Your task to perform on an android device: Open Chrome and go to the settings page Image 0: 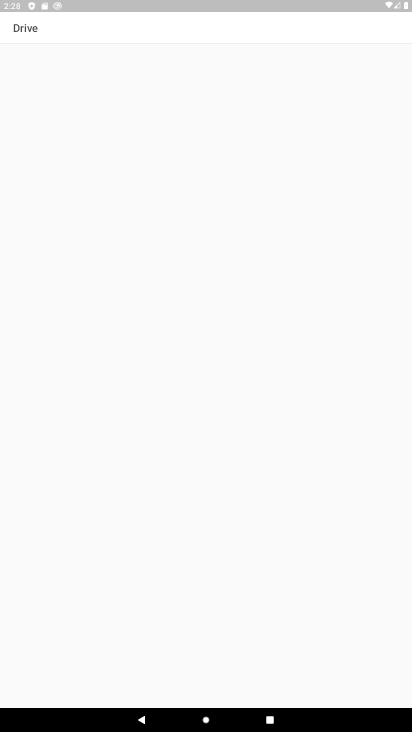
Step 0: press home button
Your task to perform on an android device: Open Chrome and go to the settings page Image 1: 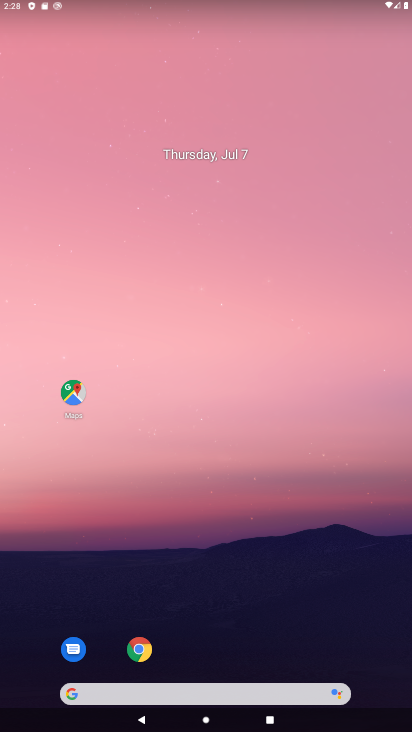
Step 1: drag from (207, 652) to (181, 201)
Your task to perform on an android device: Open Chrome and go to the settings page Image 2: 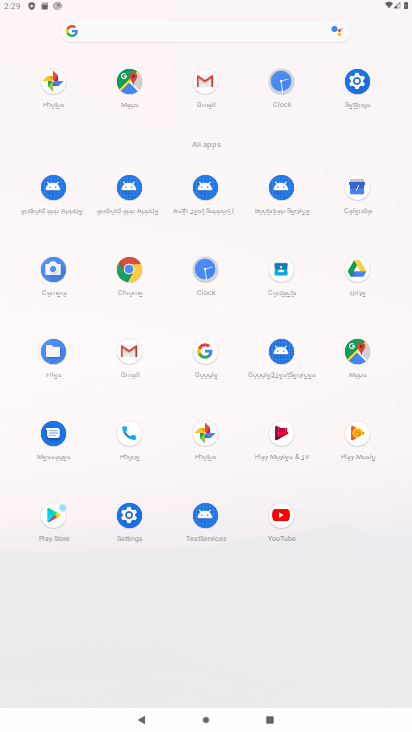
Step 2: click (132, 292)
Your task to perform on an android device: Open Chrome and go to the settings page Image 3: 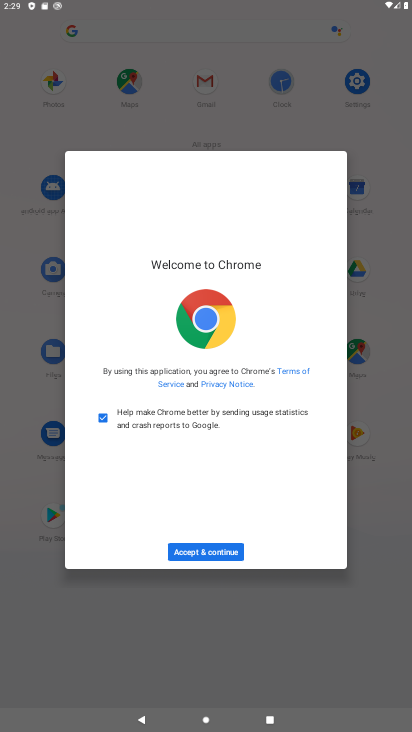
Step 3: click (196, 555)
Your task to perform on an android device: Open Chrome and go to the settings page Image 4: 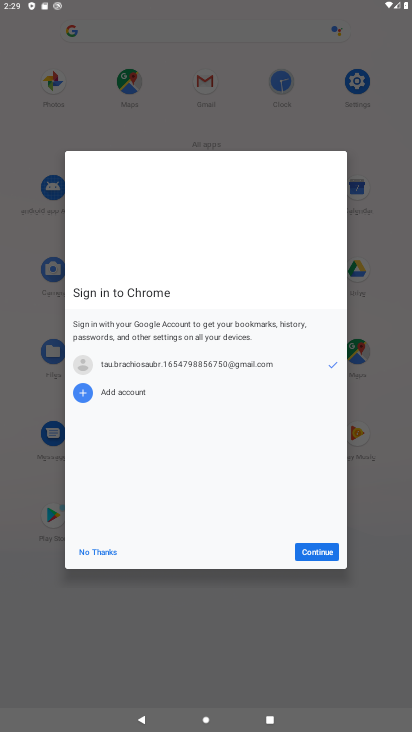
Step 4: click (326, 559)
Your task to perform on an android device: Open Chrome and go to the settings page Image 5: 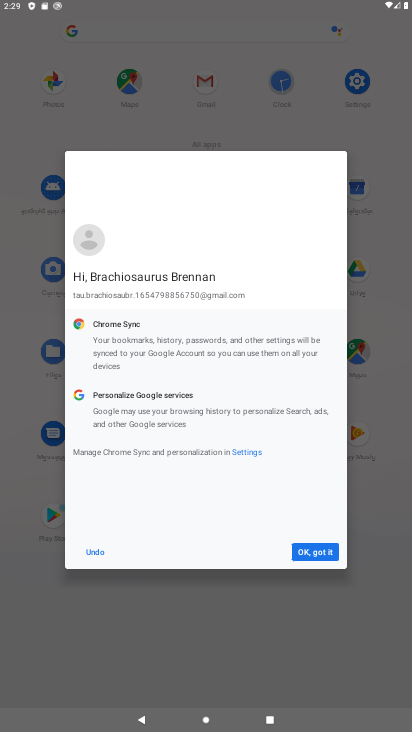
Step 5: click (328, 558)
Your task to perform on an android device: Open Chrome and go to the settings page Image 6: 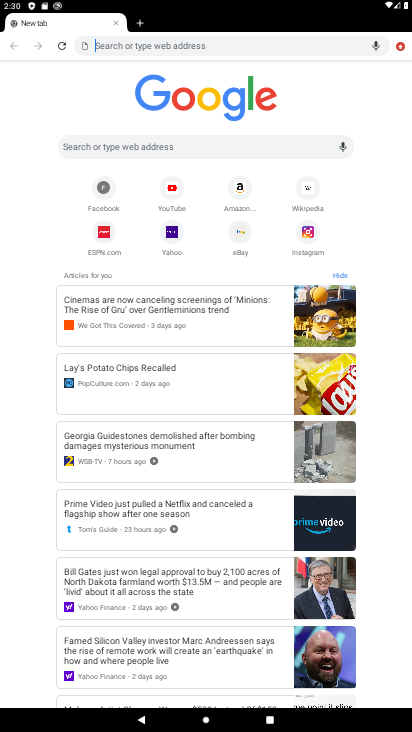
Step 6: press home button
Your task to perform on an android device: Open Chrome and go to the settings page Image 7: 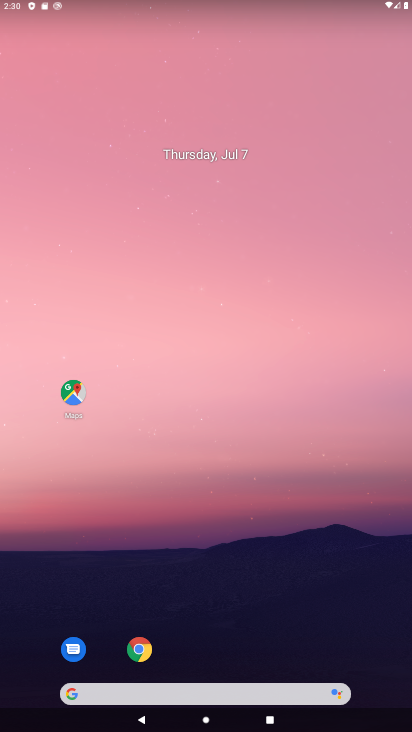
Step 7: click (143, 653)
Your task to perform on an android device: Open Chrome and go to the settings page Image 8: 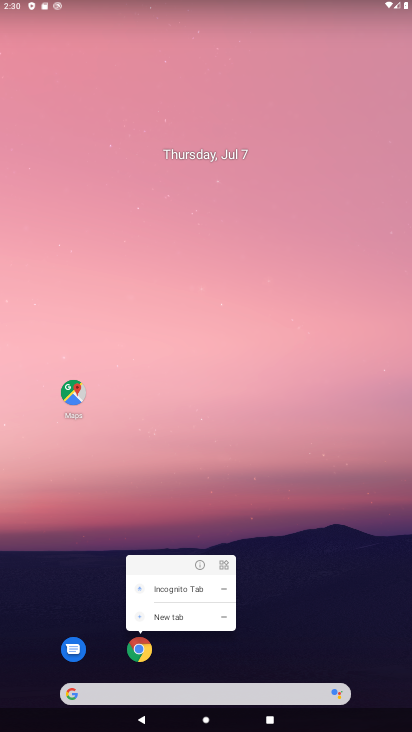
Step 8: click (143, 653)
Your task to perform on an android device: Open Chrome and go to the settings page Image 9: 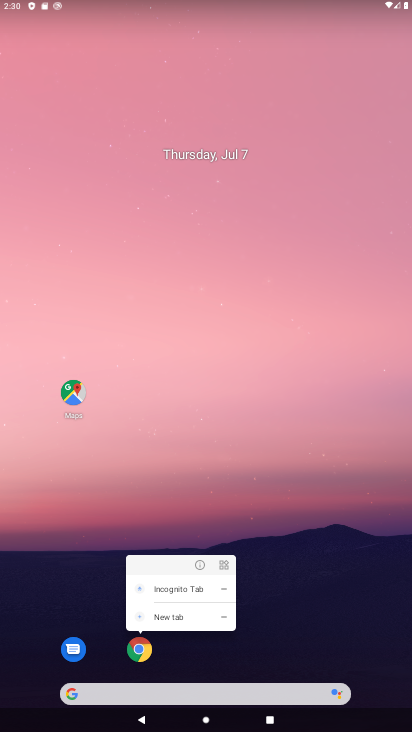
Step 9: click (143, 653)
Your task to perform on an android device: Open Chrome and go to the settings page Image 10: 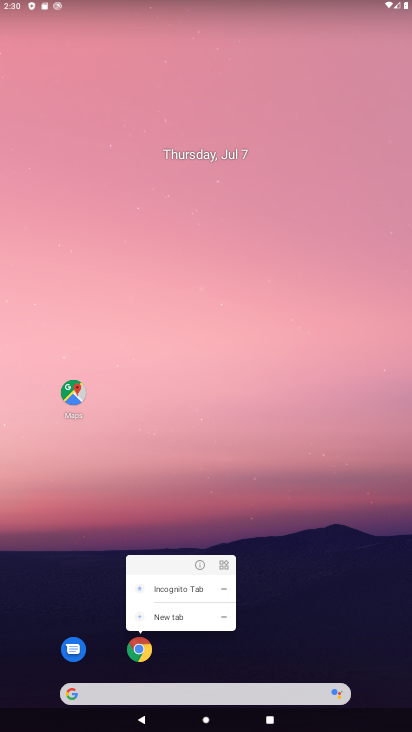
Step 10: click (143, 654)
Your task to perform on an android device: Open Chrome and go to the settings page Image 11: 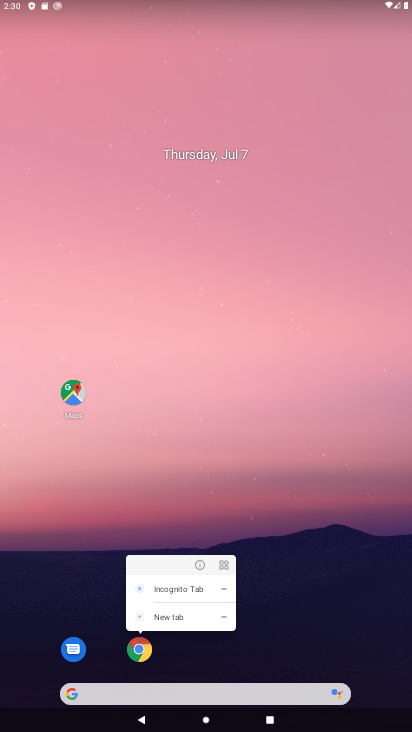
Step 11: click (143, 654)
Your task to perform on an android device: Open Chrome and go to the settings page Image 12: 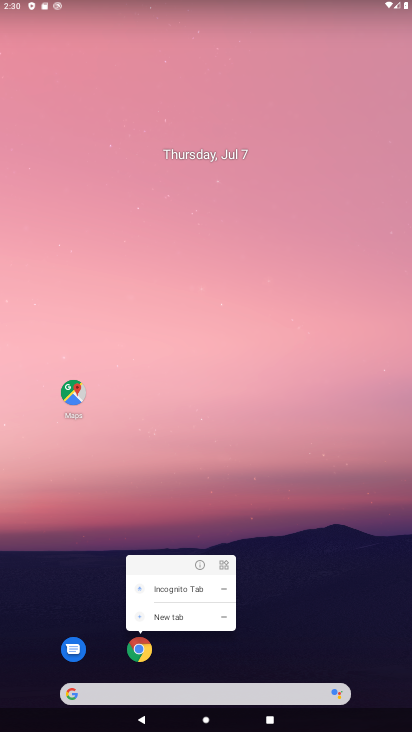
Step 12: drag from (203, 673) to (364, 3)
Your task to perform on an android device: Open Chrome and go to the settings page Image 13: 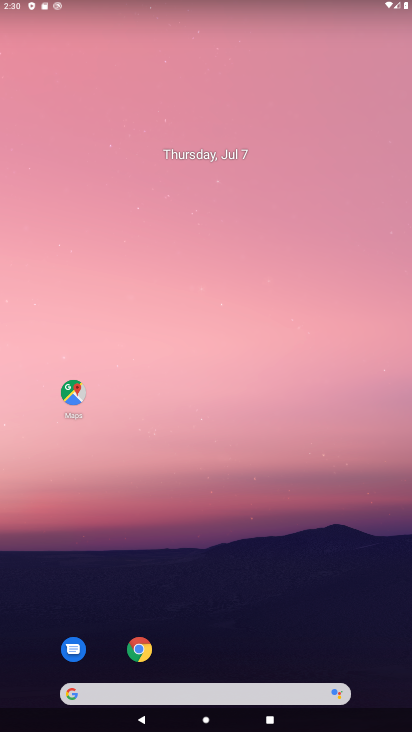
Step 13: drag from (237, 655) to (268, 27)
Your task to perform on an android device: Open Chrome and go to the settings page Image 14: 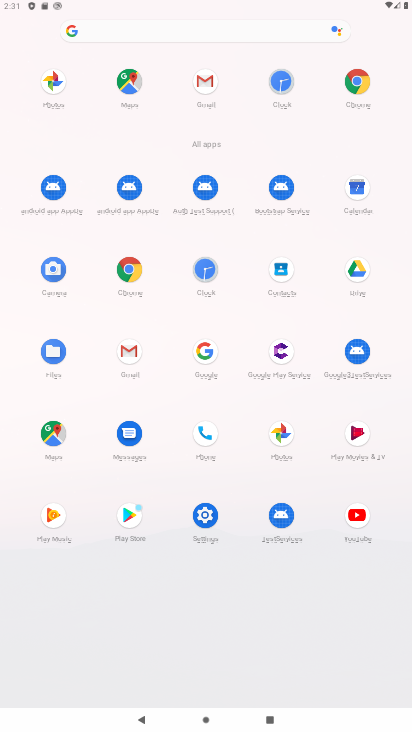
Step 14: click (132, 279)
Your task to perform on an android device: Open Chrome and go to the settings page Image 15: 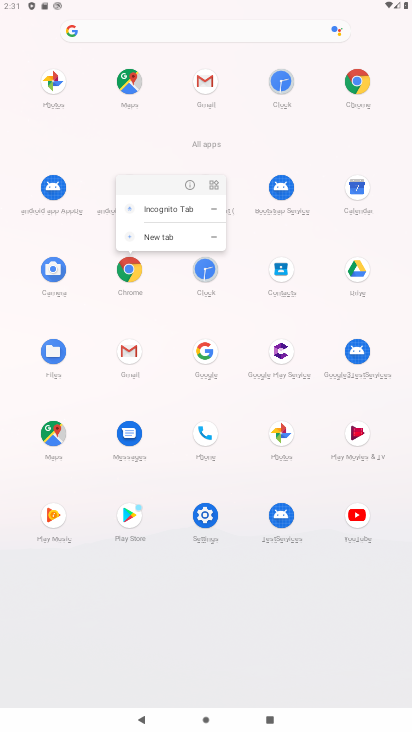
Step 15: click (132, 279)
Your task to perform on an android device: Open Chrome and go to the settings page Image 16: 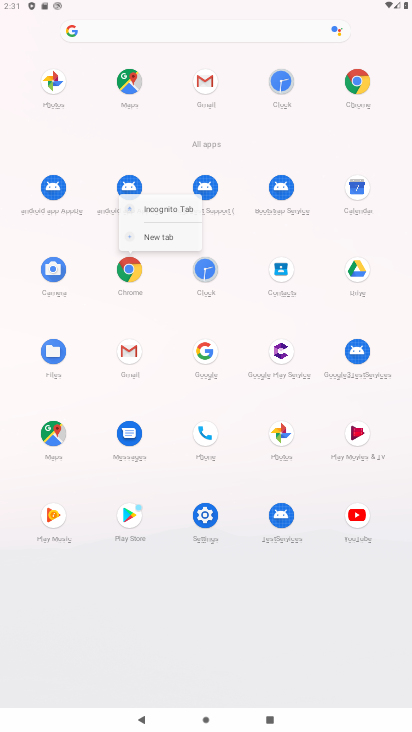
Step 16: click (132, 279)
Your task to perform on an android device: Open Chrome and go to the settings page Image 17: 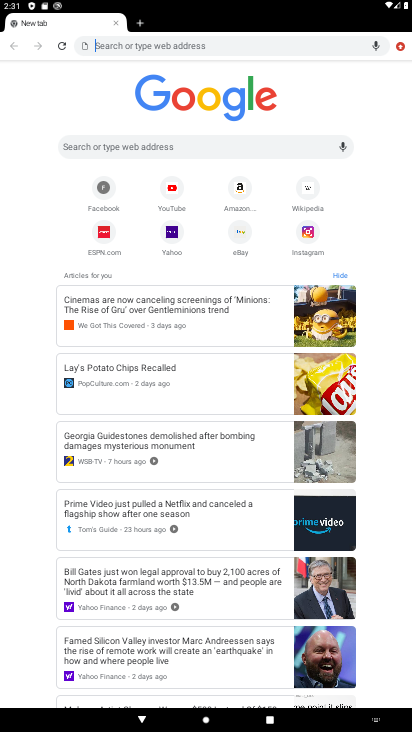
Step 17: click (406, 49)
Your task to perform on an android device: Open Chrome and go to the settings page Image 18: 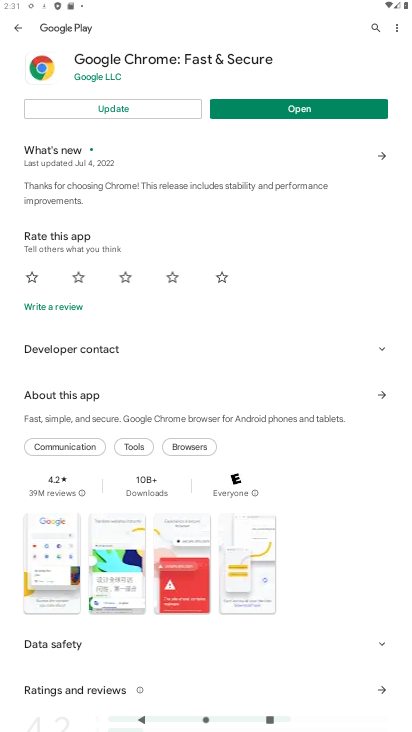
Step 18: click (249, 112)
Your task to perform on an android device: Open Chrome and go to the settings page Image 19: 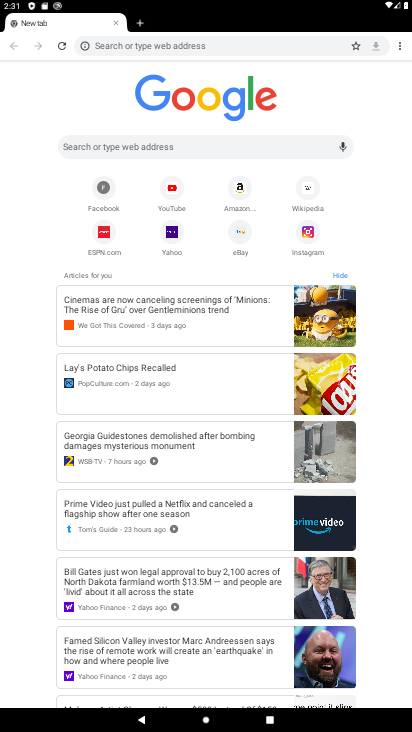
Step 19: click (399, 41)
Your task to perform on an android device: Open Chrome and go to the settings page Image 20: 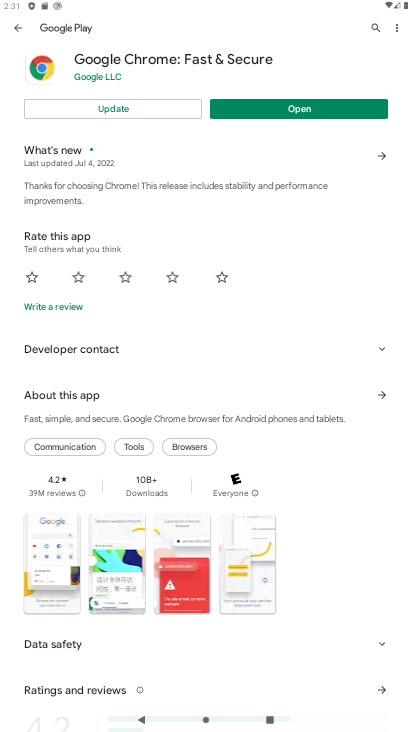
Step 20: click (335, 115)
Your task to perform on an android device: Open Chrome and go to the settings page Image 21: 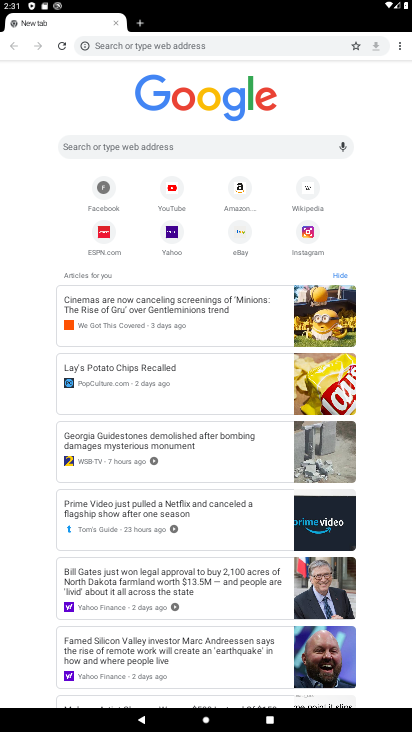
Step 21: click (399, 56)
Your task to perform on an android device: Open Chrome and go to the settings page Image 22: 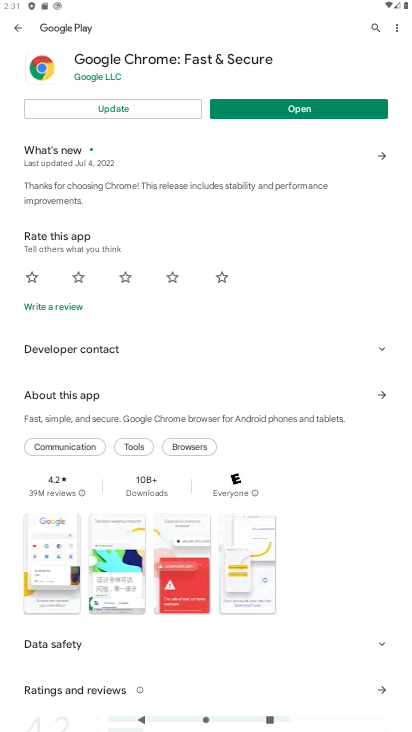
Step 22: click (358, 101)
Your task to perform on an android device: Open Chrome and go to the settings page Image 23: 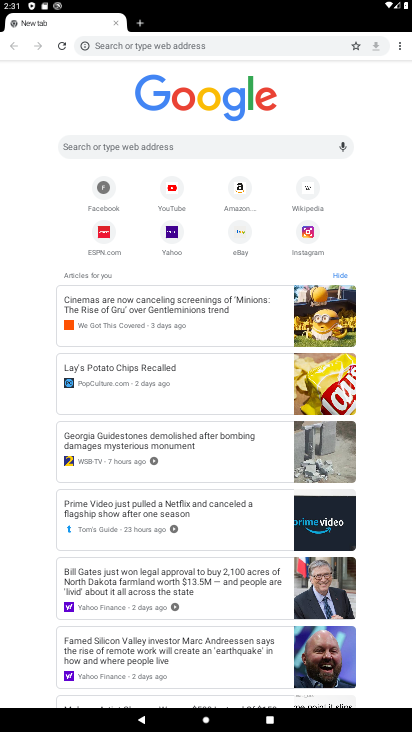
Step 23: click (401, 47)
Your task to perform on an android device: Open Chrome and go to the settings page Image 24: 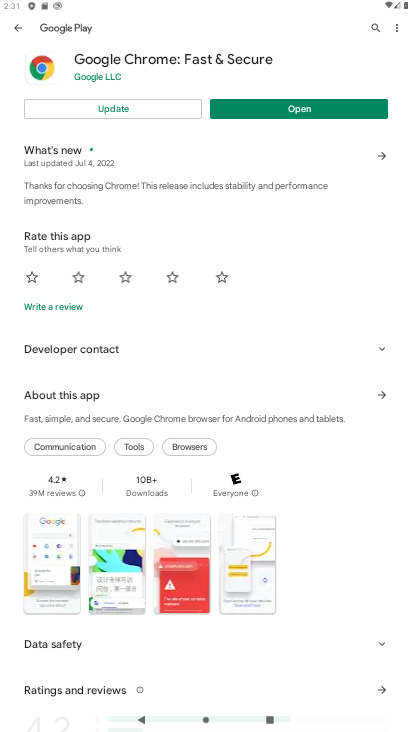
Step 24: click (334, 116)
Your task to perform on an android device: Open Chrome and go to the settings page Image 25: 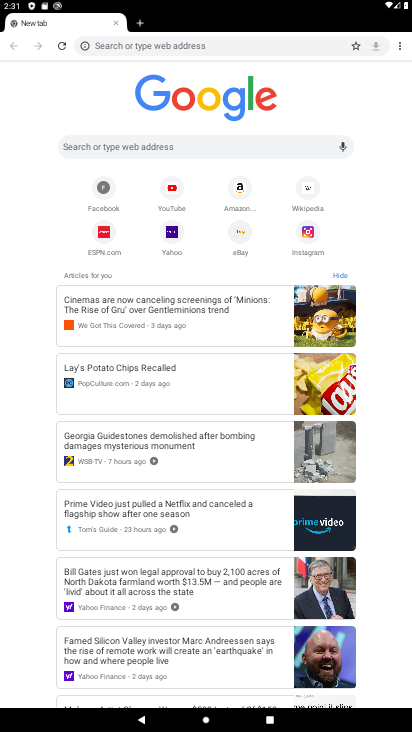
Step 25: click (399, 45)
Your task to perform on an android device: Open Chrome and go to the settings page Image 26: 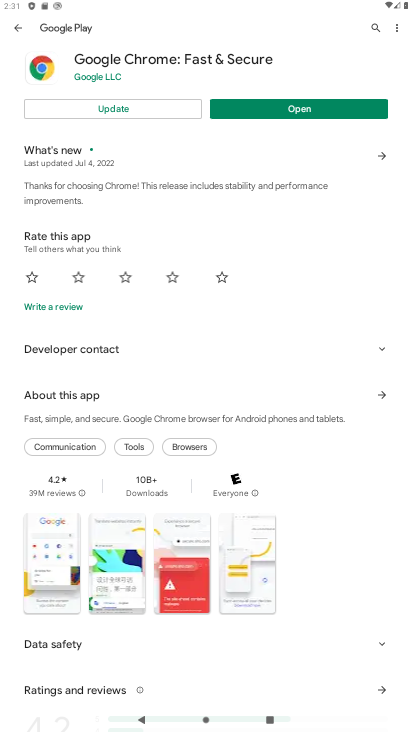
Step 26: press home button
Your task to perform on an android device: Open Chrome and go to the settings page Image 27: 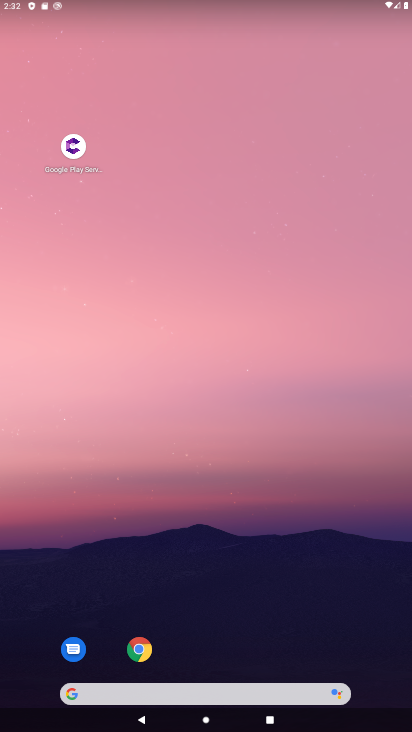
Step 27: drag from (230, 655) to (339, 0)
Your task to perform on an android device: Open Chrome and go to the settings page Image 28: 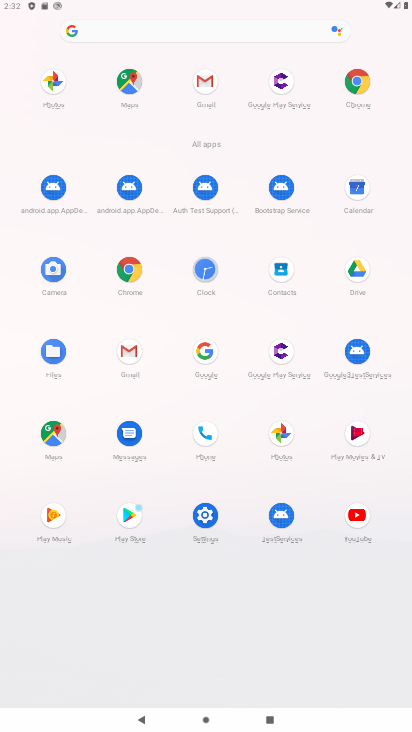
Step 28: click (353, 72)
Your task to perform on an android device: Open Chrome and go to the settings page Image 29: 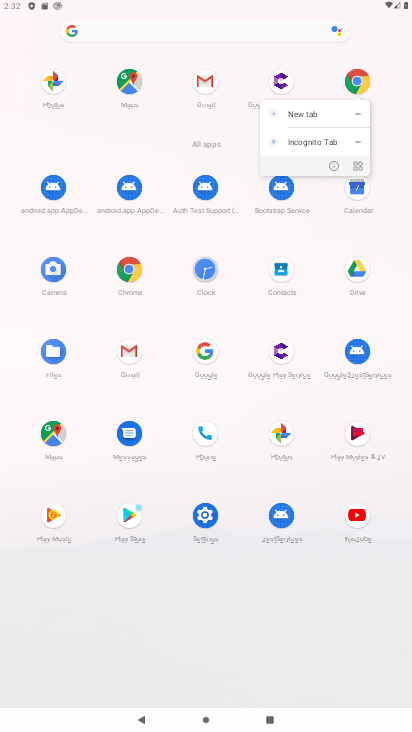
Step 29: click (355, 75)
Your task to perform on an android device: Open Chrome and go to the settings page Image 30: 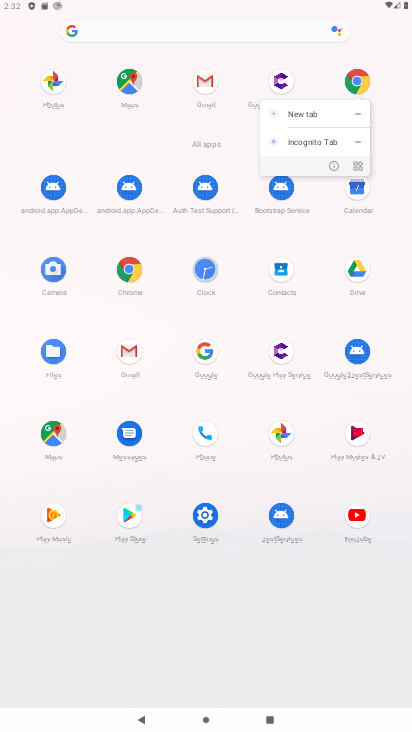
Step 30: click (353, 173)
Your task to perform on an android device: Open Chrome and go to the settings page Image 31: 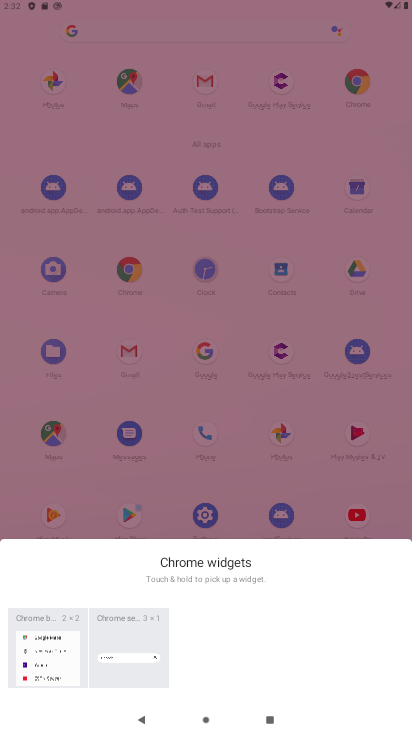
Step 31: click (332, 176)
Your task to perform on an android device: Open Chrome and go to the settings page Image 32: 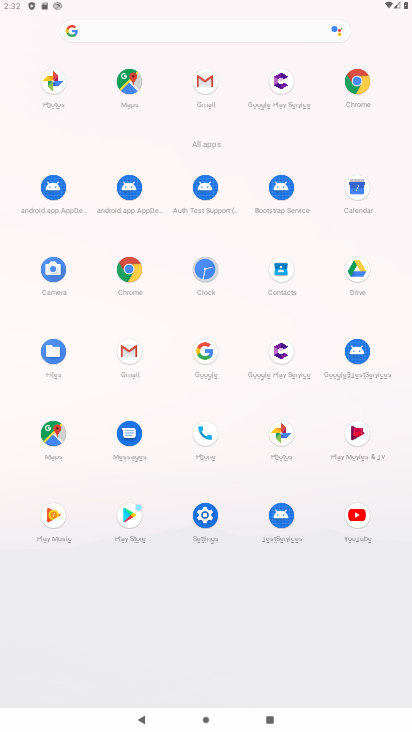
Step 32: click (333, 187)
Your task to perform on an android device: Open Chrome and go to the settings page Image 33: 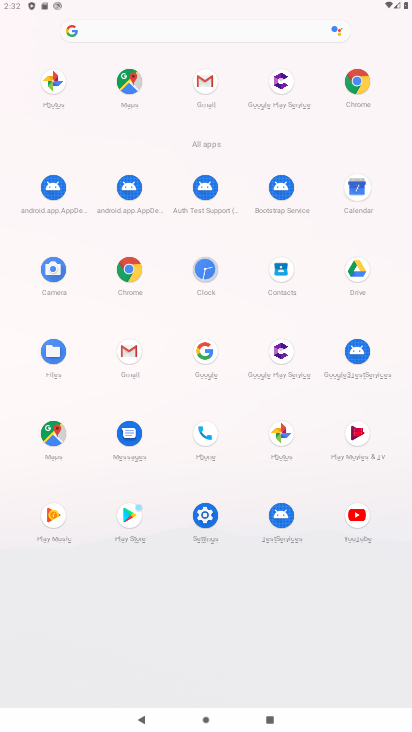
Step 33: click (352, 82)
Your task to perform on an android device: Open Chrome and go to the settings page Image 34: 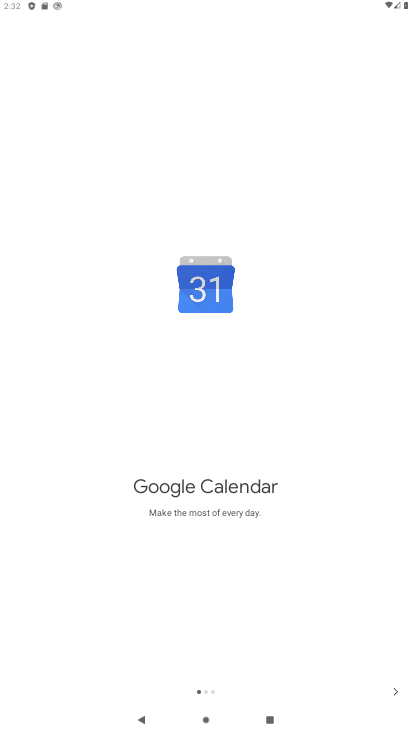
Step 34: press home button
Your task to perform on an android device: Open Chrome and go to the settings page Image 35: 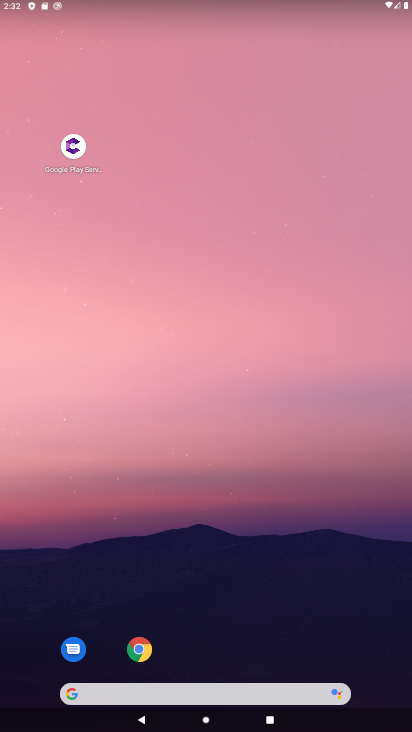
Step 35: drag from (250, 655) to (266, 35)
Your task to perform on an android device: Open Chrome and go to the settings page Image 36: 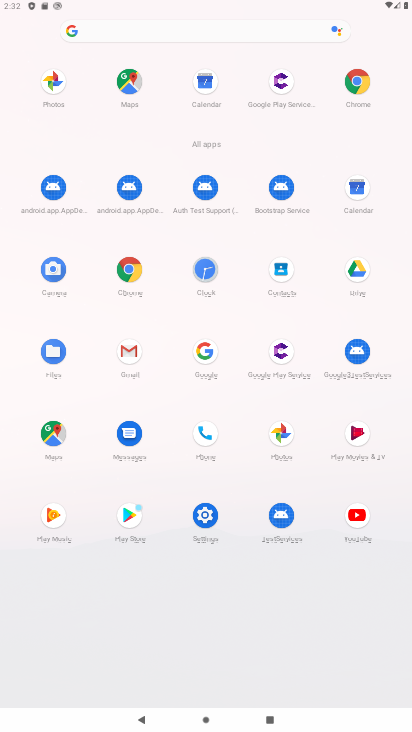
Step 36: click (360, 83)
Your task to perform on an android device: Open Chrome and go to the settings page Image 37: 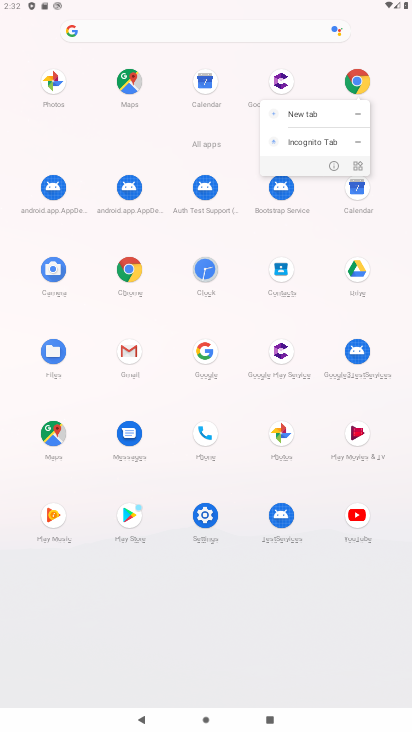
Step 37: click (360, 83)
Your task to perform on an android device: Open Chrome and go to the settings page Image 38: 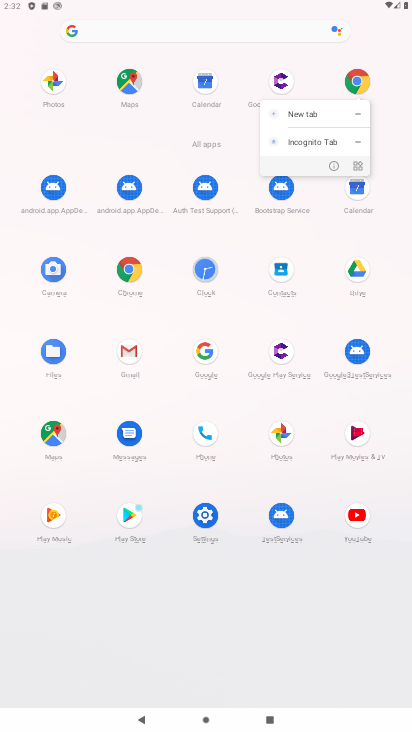
Step 38: click (366, 81)
Your task to perform on an android device: Open Chrome and go to the settings page Image 39: 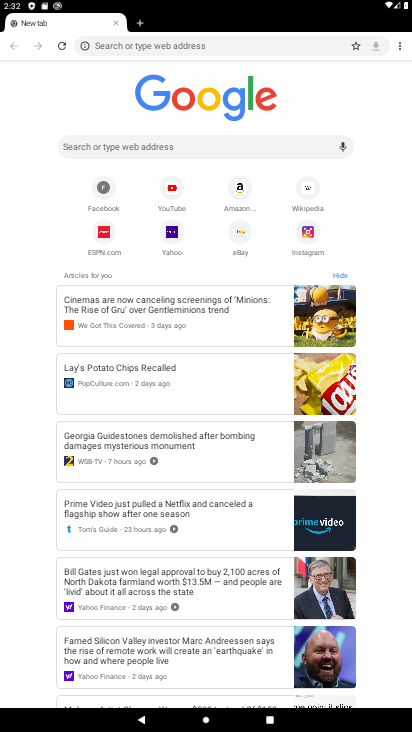
Step 39: click (401, 53)
Your task to perform on an android device: Open Chrome and go to the settings page Image 40: 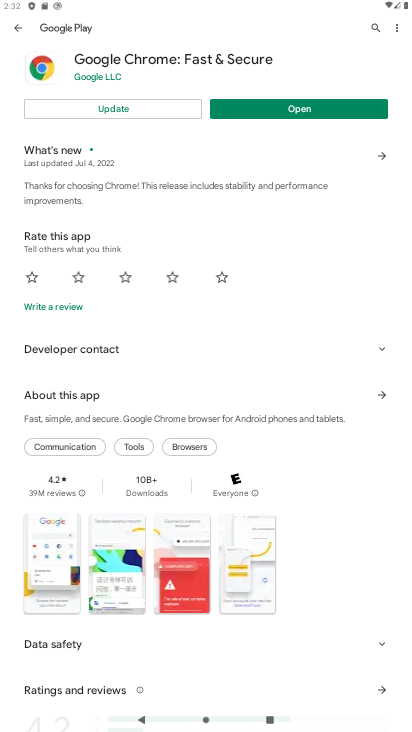
Step 40: click (193, 105)
Your task to perform on an android device: Open Chrome and go to the settings page Image 41: 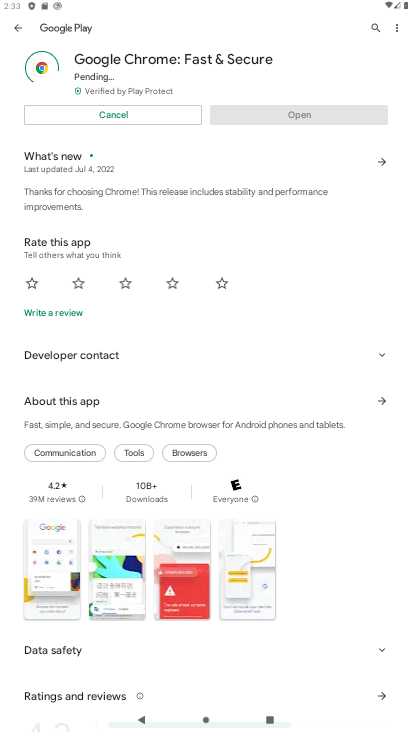
Step 41: click (189, 116)
Your task to perform on an android device: Open Chrome and go to the settings page Image 42: 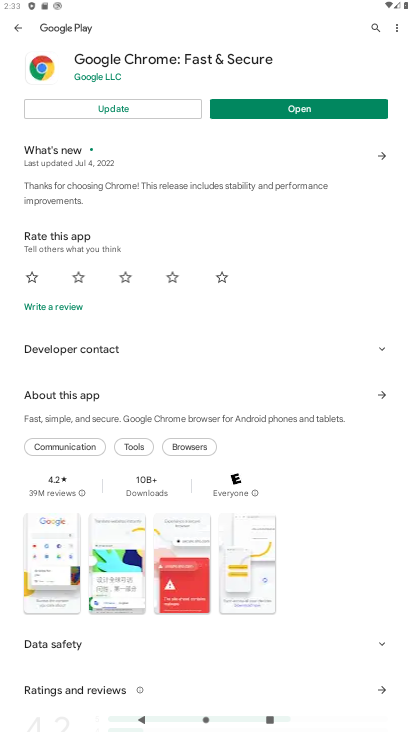
Step 42: click (237, 116)
Your task to perform on an android device: Open Chrome and go to the settings page Image 43: 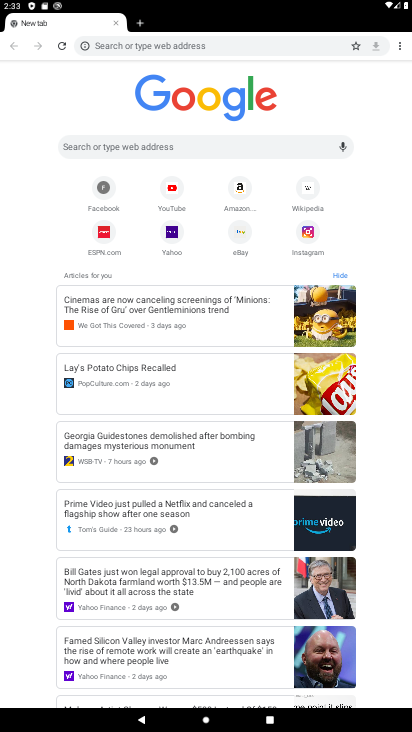
Step 43: click (398, 46)
Your task to perform on an android device: Open Chrome and go to the settings page Image 44: 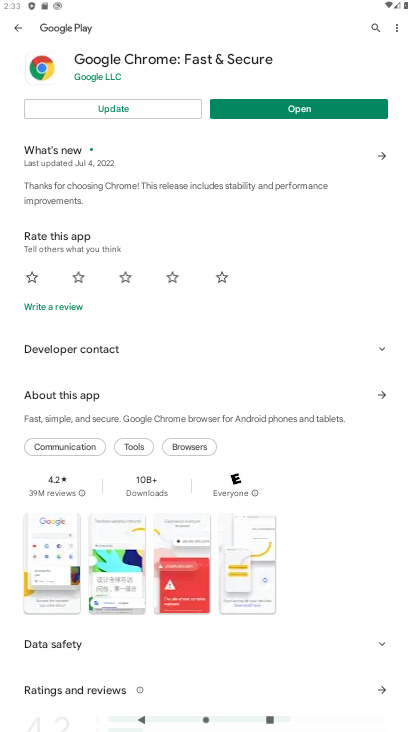
Step 44: click (360, 104)
Your task to perform on an android device: Open Chrome and go to the settings page Image 45: 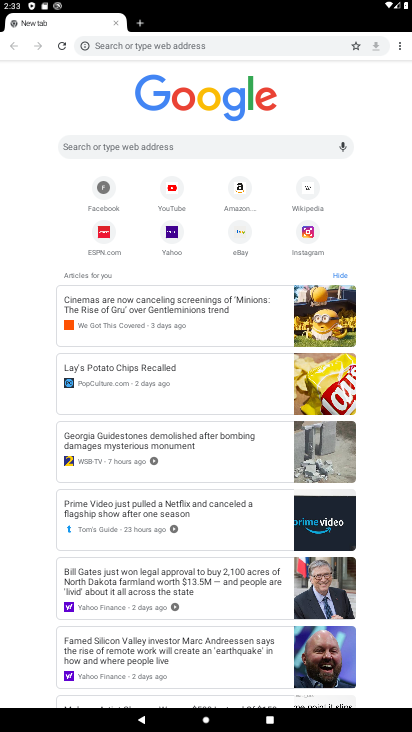
Step 45: click (399, 55)
Your task to perform on an android device: Open Chrome and go to the settings page Image 46: 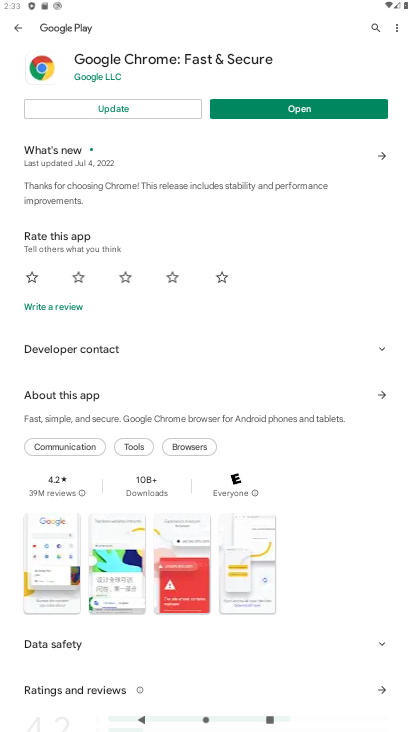
Step 46: click (260, 115)
Your task to perform on an android device: Open Chrome and go to the settings page Image 47: 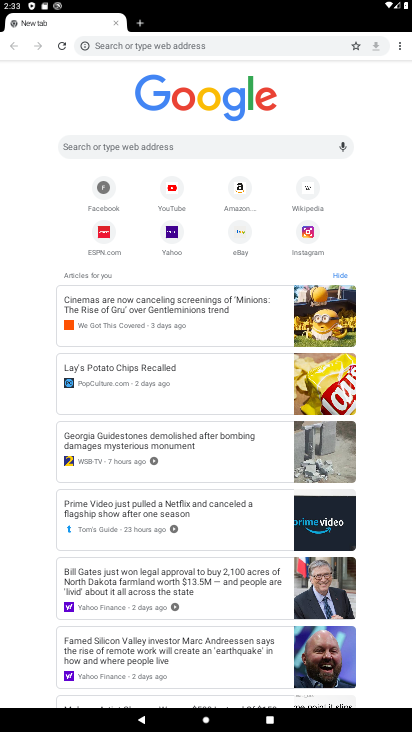
Step 47: task complete